Your task to perform on an android device: Open calendar and show me the third week of next month Image 0: 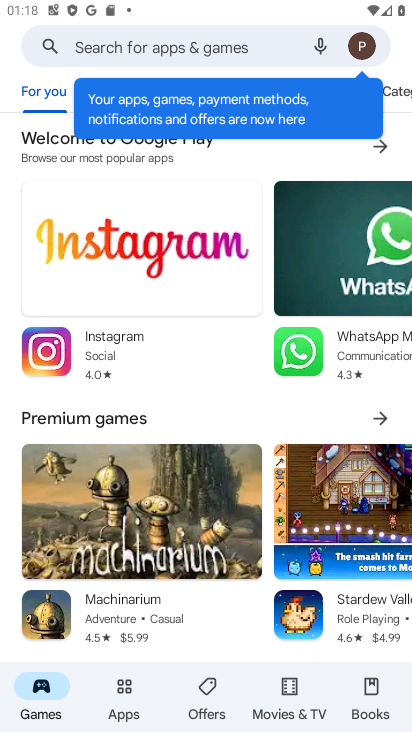
Step 0: press home button
Your task to perform on an android device: Open calendar and show me the third week of next month Image 1: 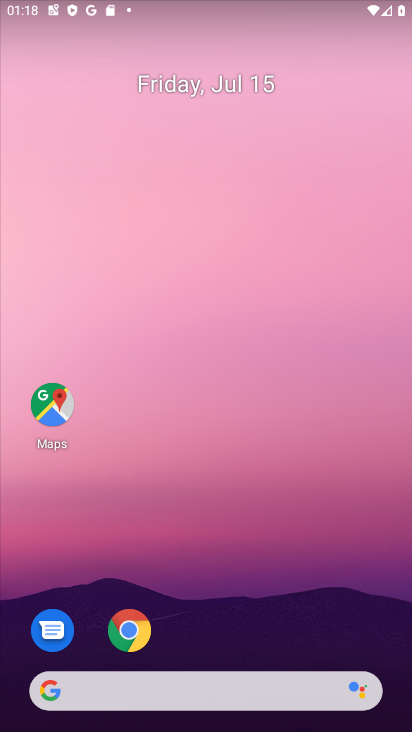
Step 1: drag from (258, 622) to (234, 29)
Your task to perform on an android device: Open calendar and show me the third week of next month Image 2: 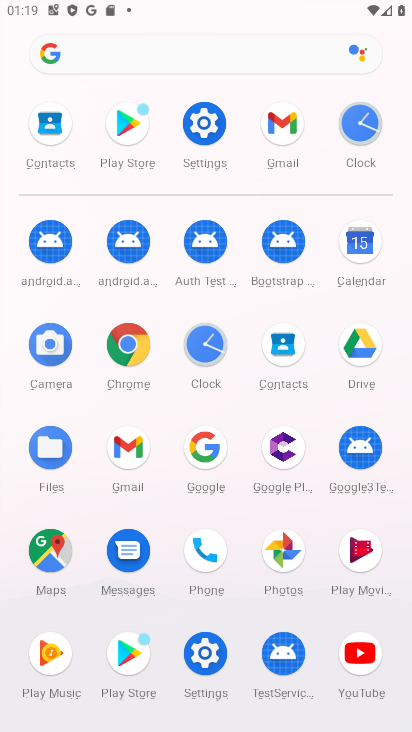
Step 2: click (363, 234)
Your task to perform on an android device: Open calendar and show me the third week of next month Image 3: 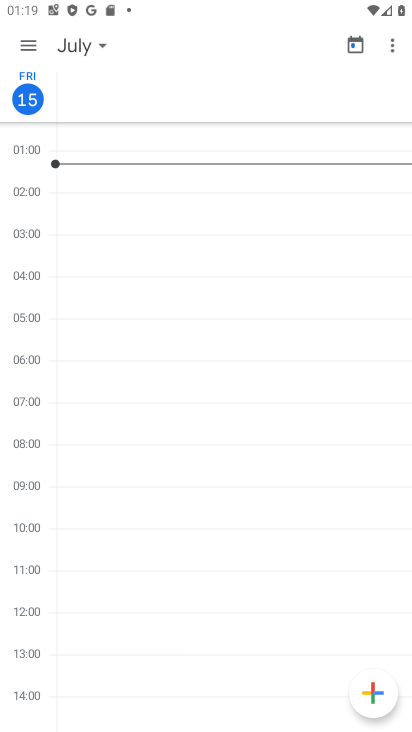
Step 3: task complete